Your task to perform on an android device: Search for Mexican restaurants on Maps Image 0: 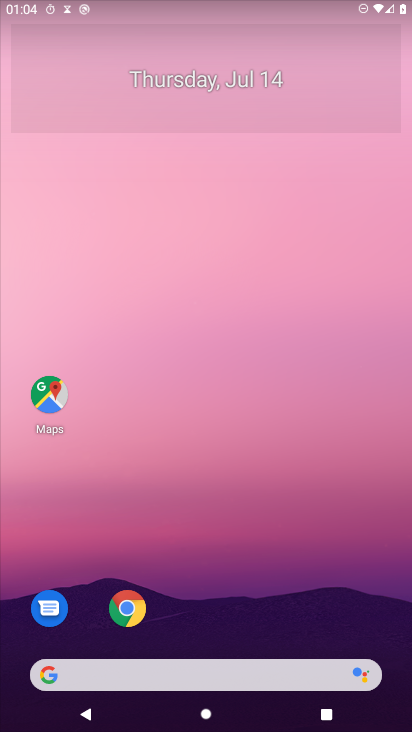
Step 0: press home button
Your task to perform on an android device: Search for Mexican restaurants on Maps Image 1: 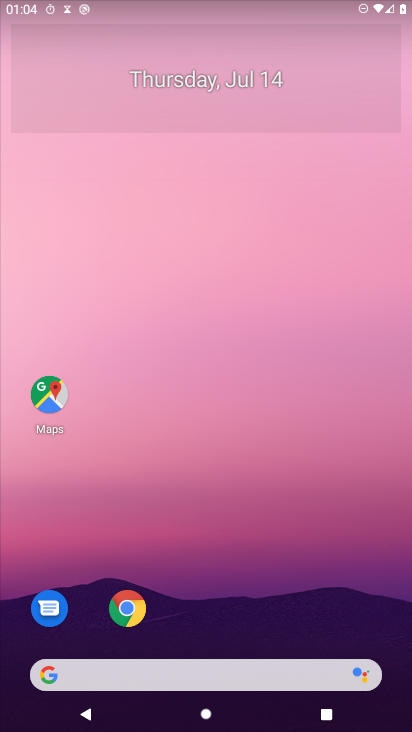
Step 1: click (45, 400)
Your task to perform on an android device: Search for Mexican restaurants on Maps Image 2: 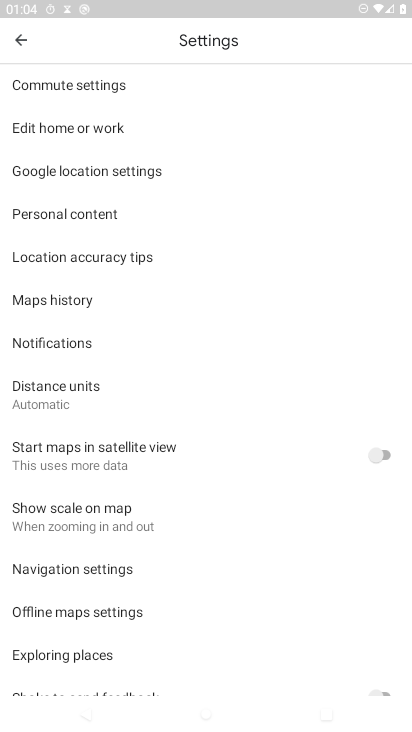
Step 2: click (20, 40)
Your task to perform on an android device: Search for Mexican restaurants on Maps Image 3: 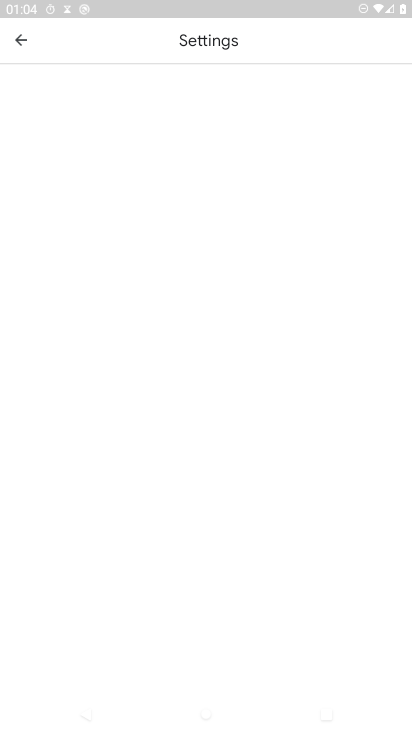
Step 3: click (23, 36)
Your task to perform on an android device: Search for Mexican restaurants on Maps Image 4: 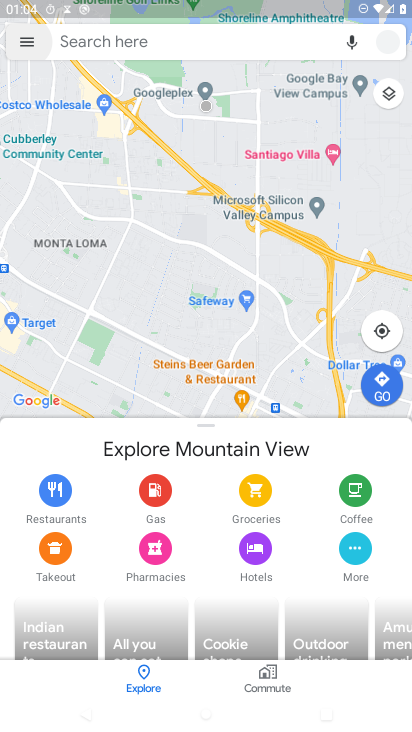
Step 4: click (147, 44)
Your task to perform on an android device: Search for Mexican restaurants on Maps Image 5: 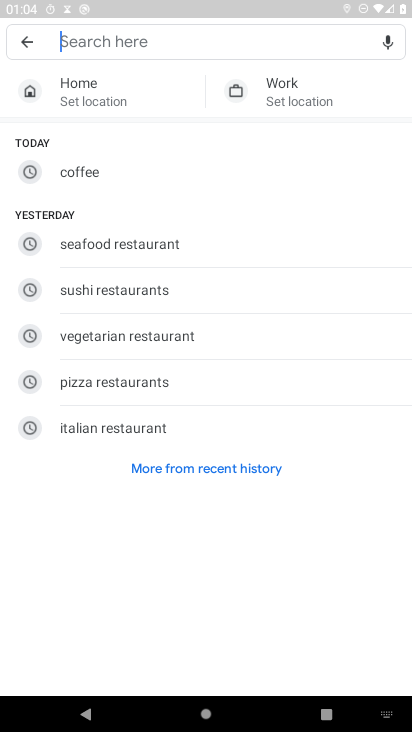
Step 5: type " Mexican restaurants"
Your task to perform on an android device: Search for Mexican restaurants on Maps Image 6: 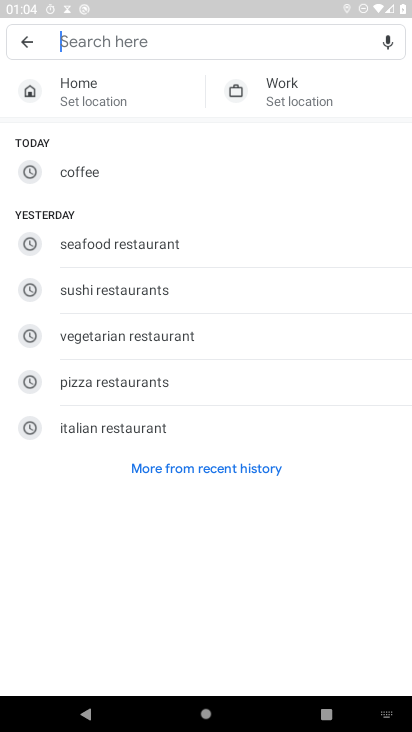
Step 6: click (98, 36)
Your task to perform on an android device: Search for Mexican restaurants on Maps Image 7: 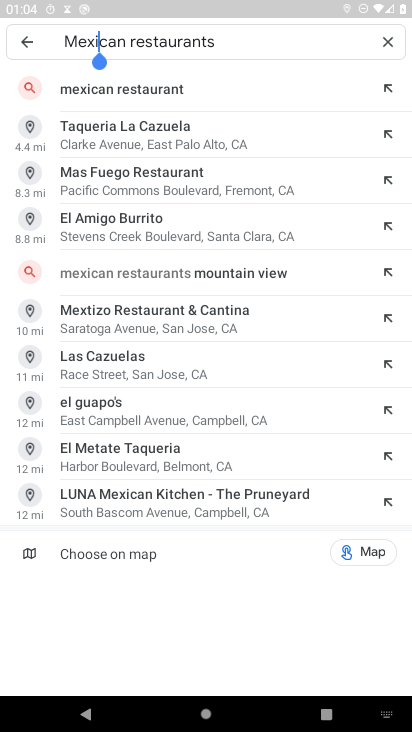
Step 7: click (168, 89)
Your task to perform on an android device: Search for Mexican restaurants on Maps Image 8: 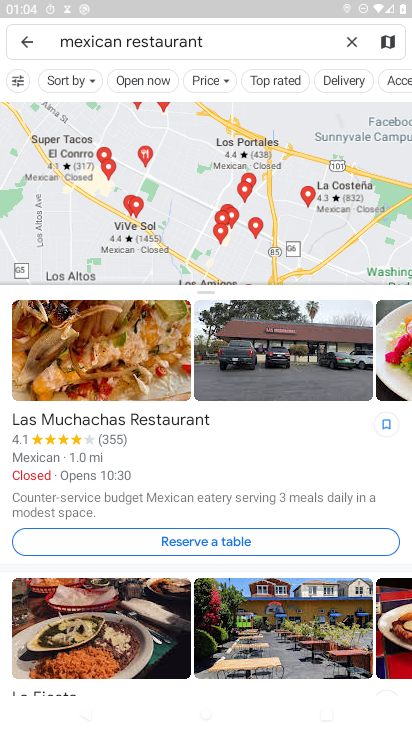
Step 8: task complete